Your task to perform on an android device: Show the shopping cart on bestbuy. Add macbook pro 13 inch to the cart on bestbuy Image 0: 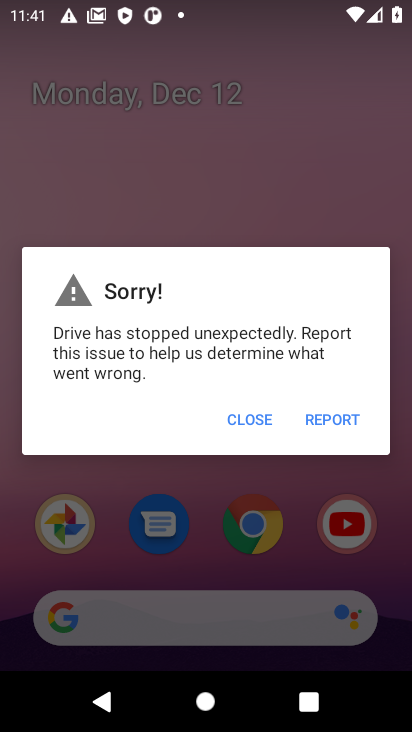
Step 0: press home button
Your task to perform on an android device: Show the shopping cart on bestbuy. Add macbook pro 13 inch to the cart on bestbuy Image 1: 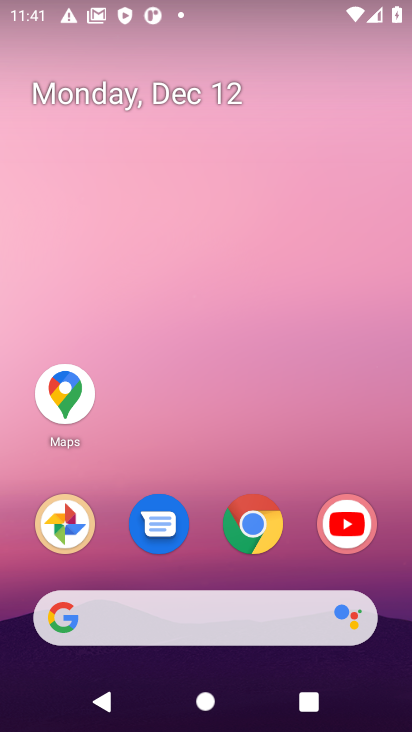
Step 1: click (256, 532)
Your task to perform on an android device: Show the shopping cart on bestbuy. Add macbook pro 13 inch to the cart on bestbuy Image 2: 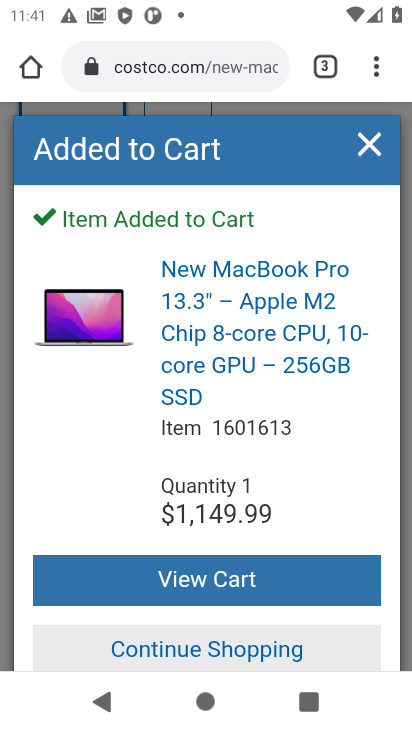
Step 2: click (145, 65)
Your task to perform on an android device: Show the shopping cart on bestbuy. Add macbook pro 13 inch to the cart on bestbuy Image 3: 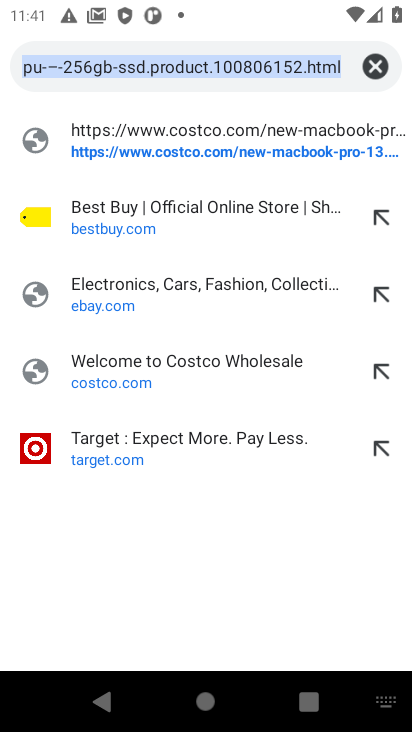
Step 3: click (82, 219)
Your task to perform on an android device: Show the shopping cart on bestbuy. Add macbook pro 13 inch to the cart on bestbuy Image 4: 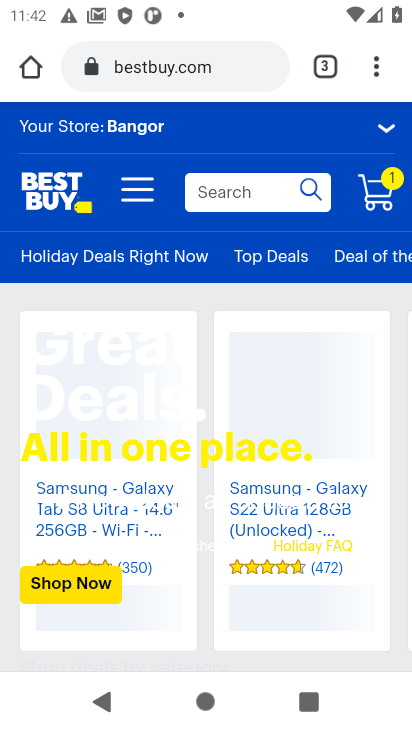
Step 4: click (379, 196)
Your task to perform on an android device: Show the shopping cart on bestbuy. Add macbook pro 13 inch to the cart on bestbuy Image 5: 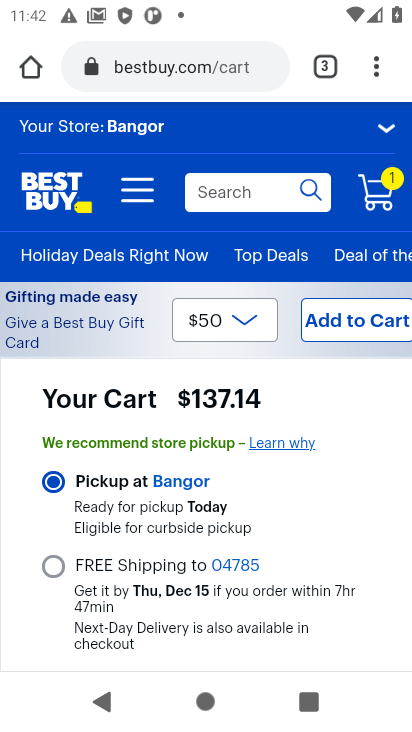
Step 5: drag from (328, 534) to (322, 324)
Your task to perform on an android device: Show the shopping cart on bestbuy. Add macbook pro 13 inch to the cart on bestbuy Image 6: 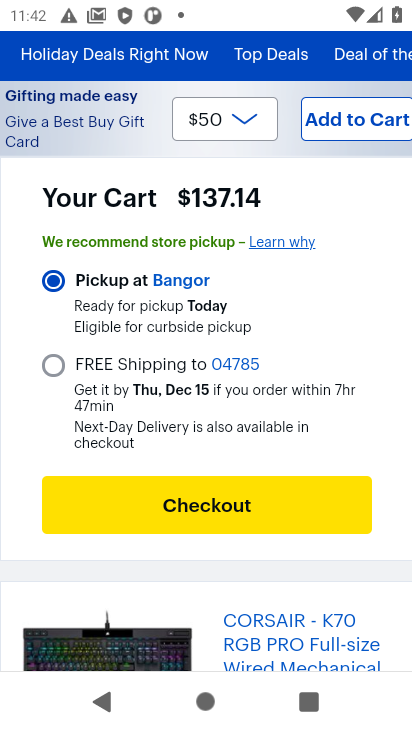
Step 6: drag from (322, 195) to (306, 509)
Your task to perform on an android device: Show the shopping cart on bestbuy. Add macbook pro 13 inch to the cart on bestbuy Image 7: 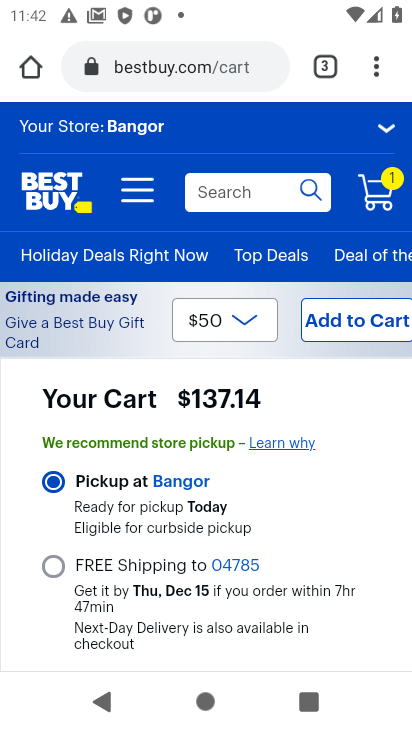
Step 7: click (224, 196)
Your task to perform on an android device: Show the shopping cart on bestbuy. Add macbook pro 13 inch to the cart on bestbuy Image 8: 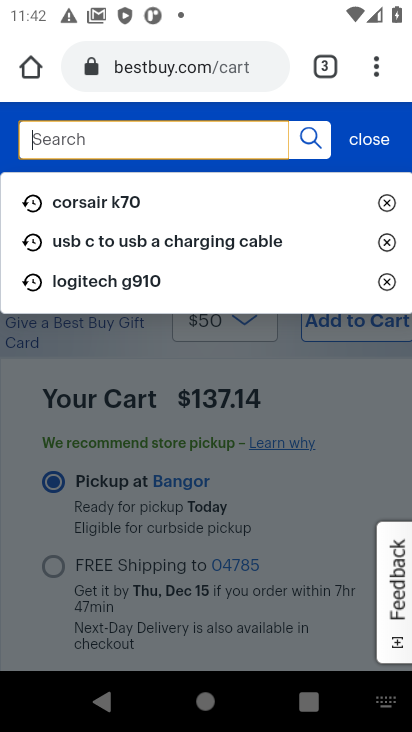
Step 8: type "macbook pro 13 inch"
Your task to perform on an android device: Show the shopping cart on bestbuy. Add macbook pro 13 inch to the cart on bestbuy Image 9: 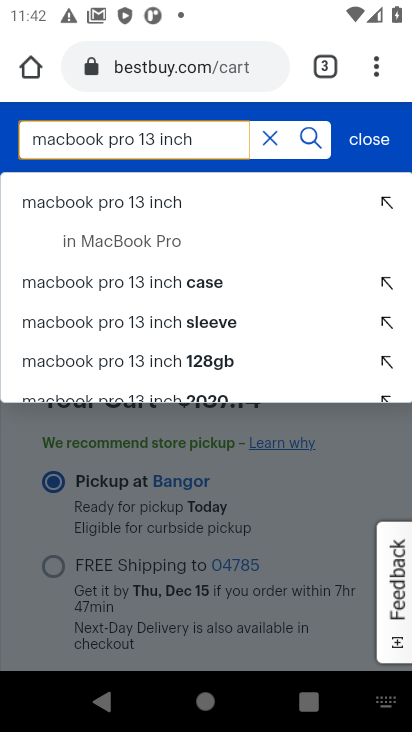
Step 9: click (78, 206)
Your task to perform on an android device: Show the shopping cart on bestbuy. Add macbook pro 13 inch to the cart on bestbuy Image 10: 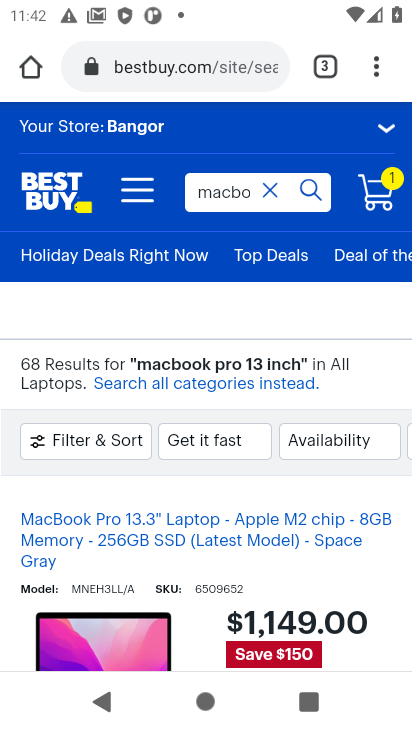
Step 10: drag from (150, 509) to (156, 210)
Your task to perform on an android device: Show the shopping cart on bestbuy. Add macbook pro 13 inch to the cart on bestbuy Image 11: 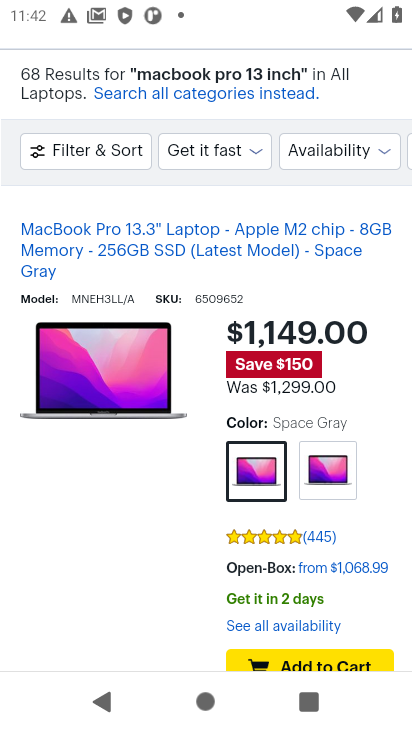
Step 11: drag from (171, 487) to (179, 301)
Your task to perform on an android device: Show the shopping cart on bestbuy. Add macbook pro 13 inch to the cart on bestbuy Image 12: 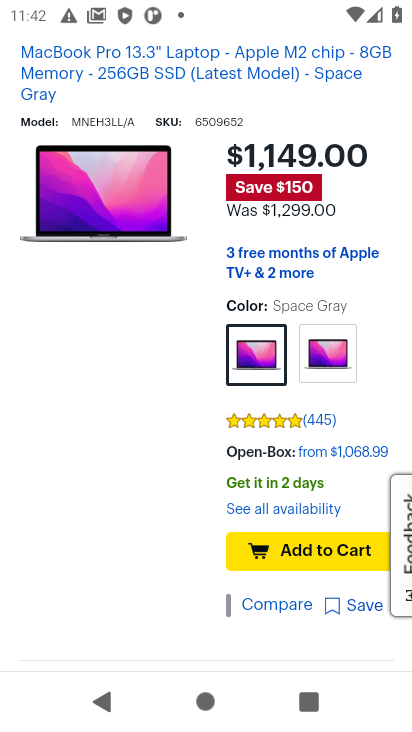
Step 12: click (303, 550)
Your task to perform on an android device: Show the shopping cart on bestbuy. Add macbook pro 13 inch to the cart on bestbuy Image 13: 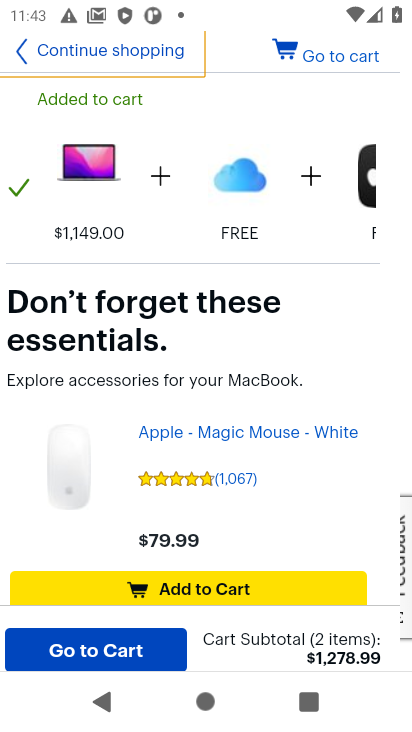
Step 13: task complete